Your task to perform on an android device: Open Reddit.com Image 0: 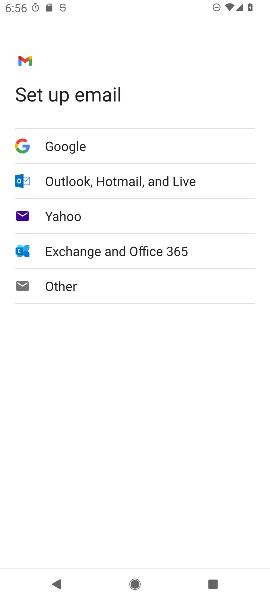
Step 0: press home button
Your task to perform on an android device: Open Reddit.com Image 1: 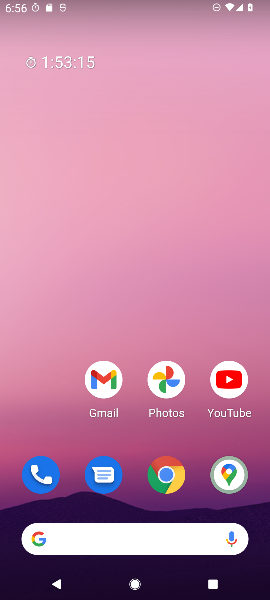
Step 1: drag from (65, 448) to (64, 156)
Your task to perform on an android device: Open Reddit.com Image 2: 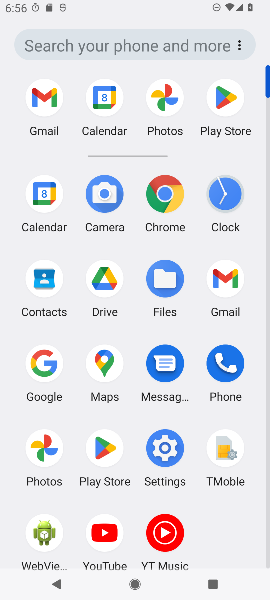
Step 2: click (168, 198)
Your task to perform on an android device: Open Reddit.com Image 3: 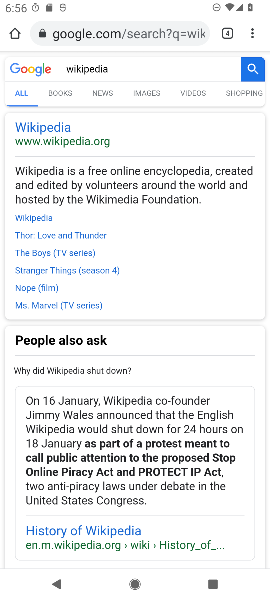
Step 3: click (146, 33)
Your task to perform on an android device: Open Reddit.com Image 4: 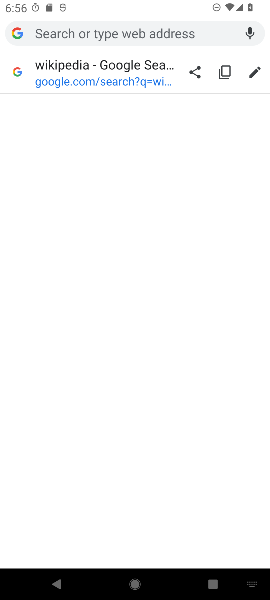
Step 4: type "reddit.com"
Your task to perform on an android device: Open Reddit.com Image 5: 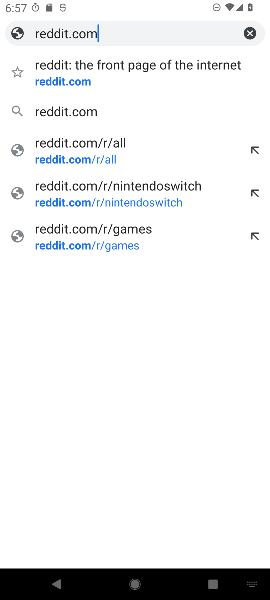
Step 5: click (67, 65)
Your task to perform on an android device: Open Reddit.com Image 6: 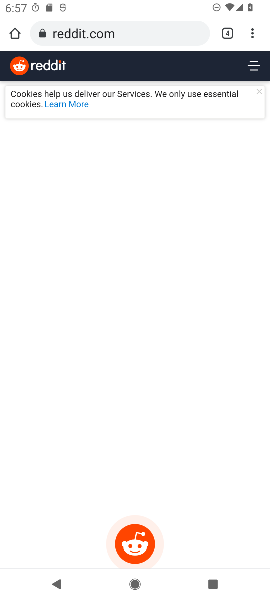
Step 6: task complete